Your task to perform on an android device: turn on the 24-hour format for clock Image 0: 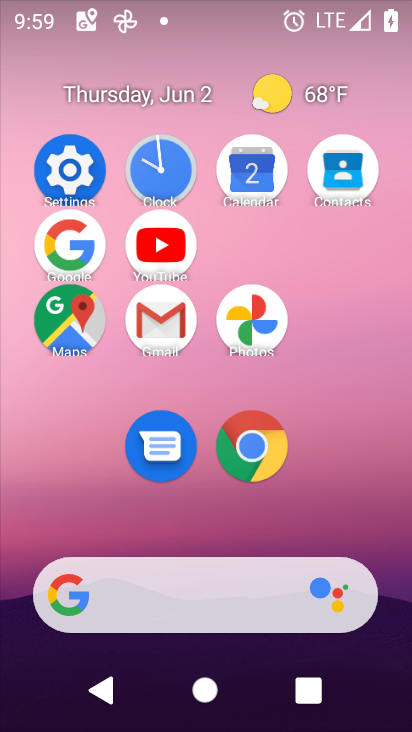
Step 0: click (168, 169)
Your task to perform on an android device: turn on the 24-hour format for clock Image 1: 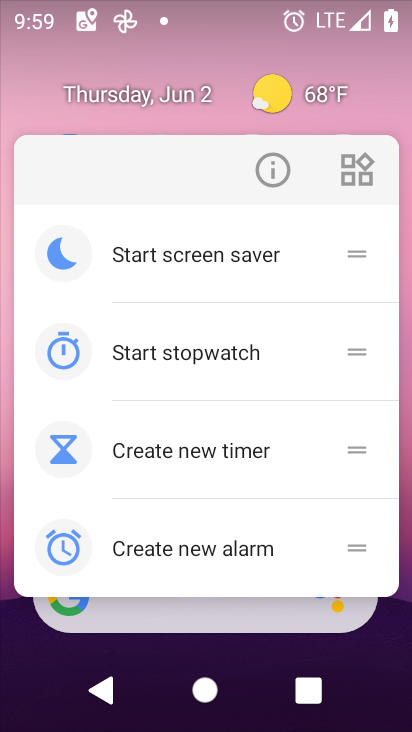
Step 1: click (32, 46)
Your task to perform on an android device: turn on the 24-hour format for clock Image 2: 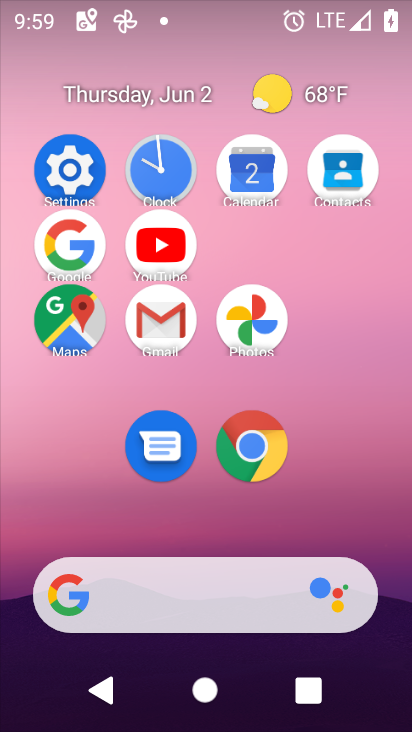
Step 2: click (181, 173)
Your task to perform on an android device: turn on the 24-hour format for clock Image 3: 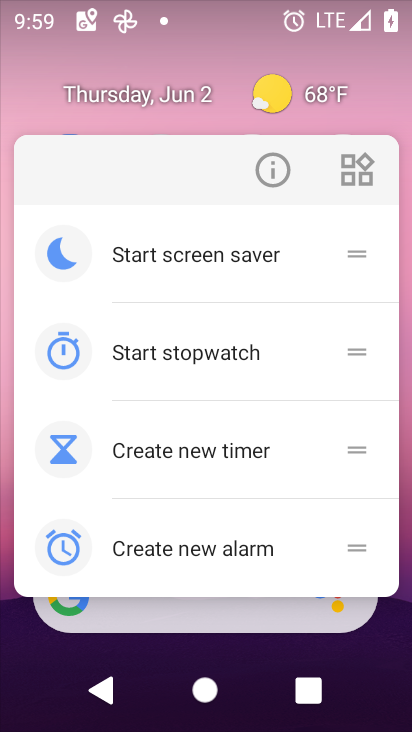
Step 3: click (28, 83)
Your task to perform on an android device: turn on the 24-hour format for clock Image 4: 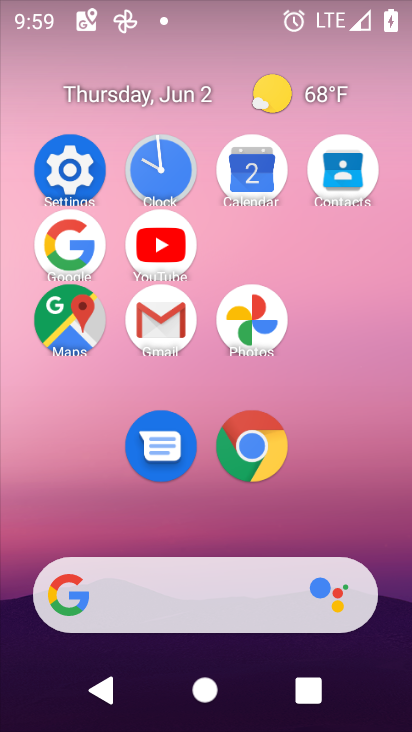
Step 4: click (149, 181)
Your task to perform on an android device: turn on the 24-hour format for clock Image 5: 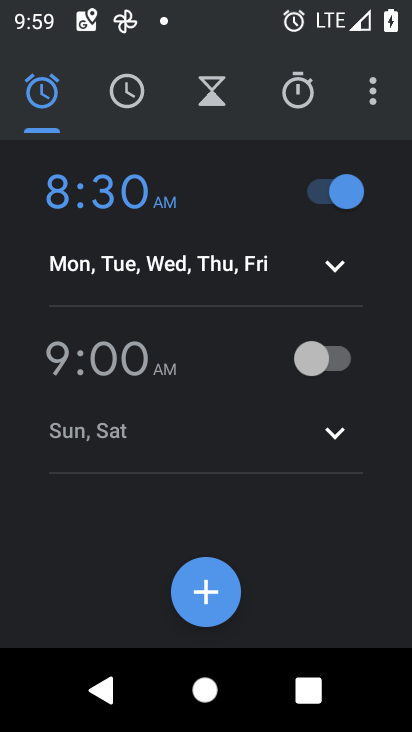
Step 5: click (389, 80)
Your task to perform on an android device: turn on the 24-hour format for clock Image 6: 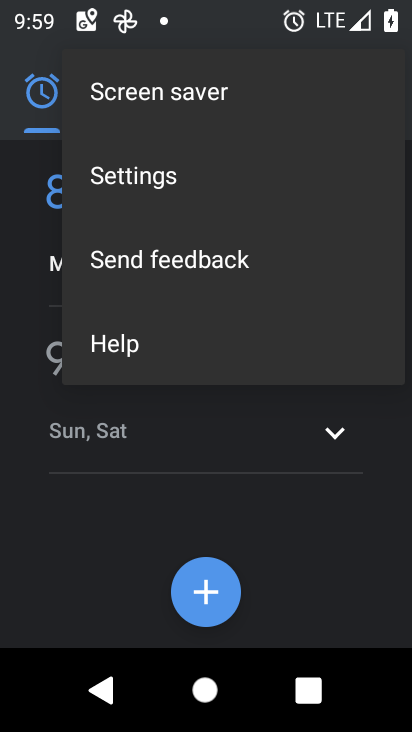
Step 6: click (228, 178)
Your task to perform on an android device: turn on the 24-hour format for clock Image 7: 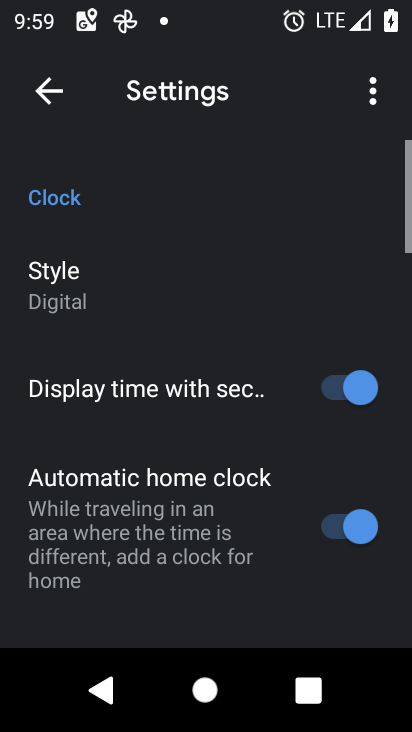
Step 7: drag from (264, 500) to (233, 125)
Your task to perform on an android device: turn on the 24-hour format for clock Image 8: 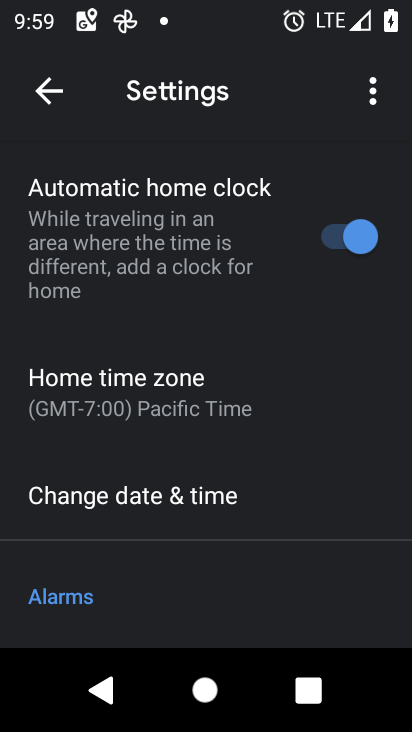
Step 8: click (247, 523)
Your task to perform on an android device: turn on the 24-hour format for clock Image 9: 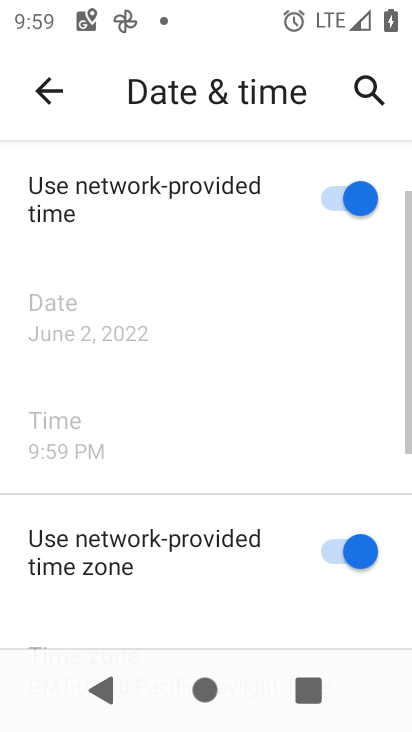
Step 9: drag from (247, 521) to (248, 193)
Your task to perform on an android device: turn on the 24-hour format for clock Image 10: 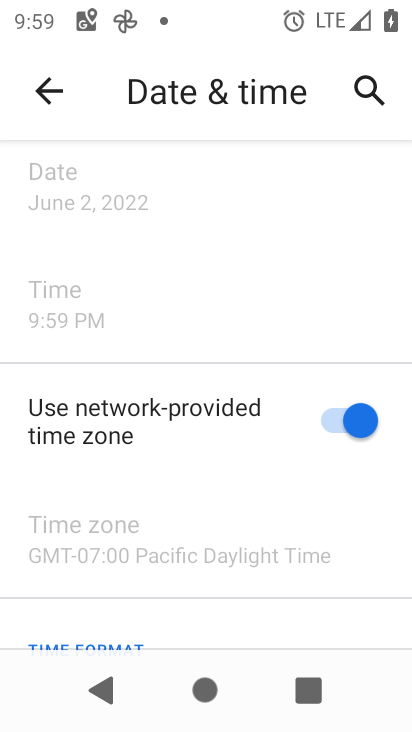
Step 10: drag from (265, 508) to (224, 234)
Your task to perform on an android device: turn on the 24-hour format for clock Image 11: 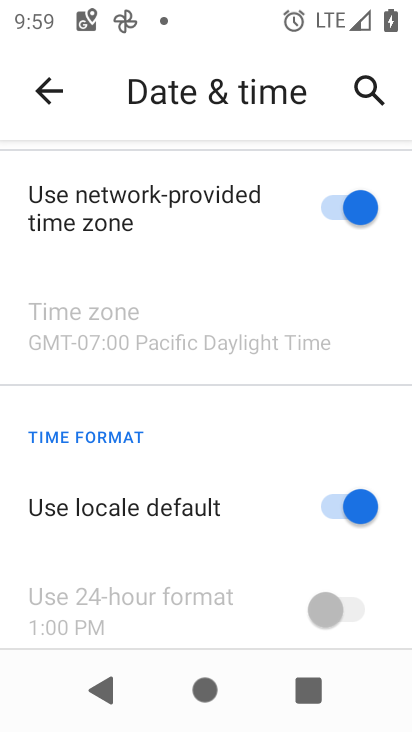
Step 11: click (344, 605)
Your task to perform on an android device: turn on the 24-hour format for clock Image 12: 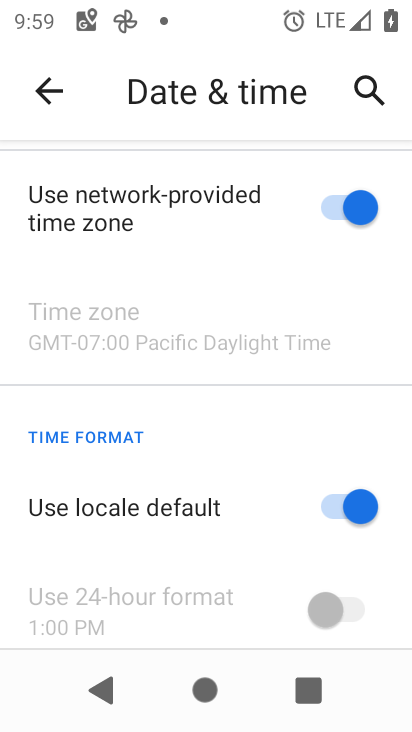
Step 12: click (375, 513)
Your task to perform on an android device: turn on the 24-hour format for clock Image 13: 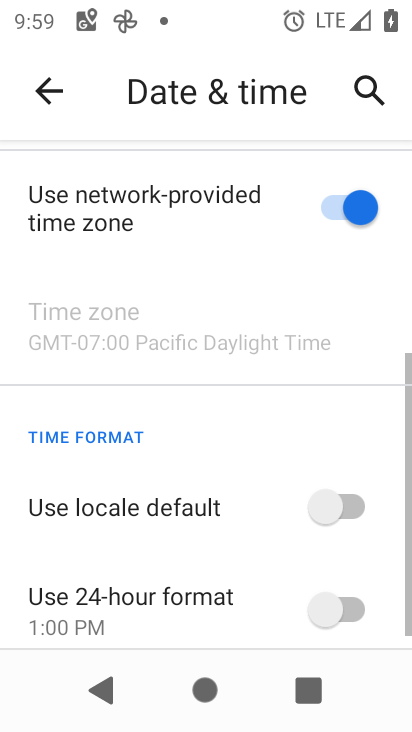
Step 13: click (353, 620)
Your task to perform on an android device: turn on the 24-hour format for clock Image 14: 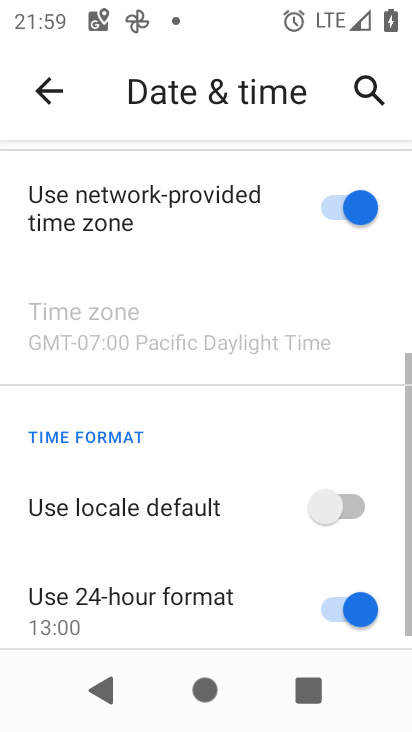
Step 14: task complete